Your task to perform on an android device: Go to settings Image 0: 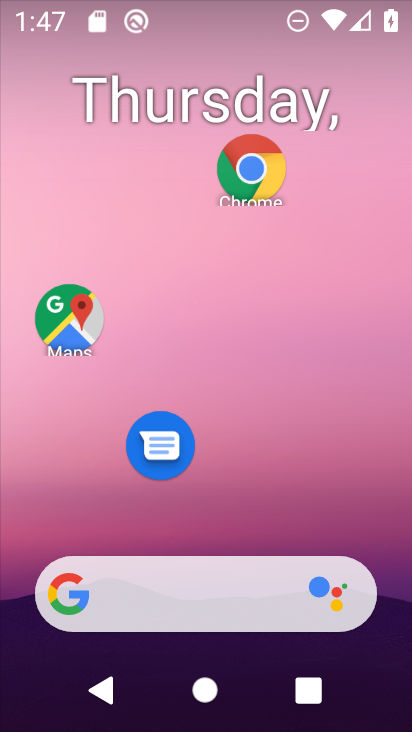
Step 0: drag from (175, 638) to (178, 86)
Your task to perform on an android device: Go to settings Image 1: 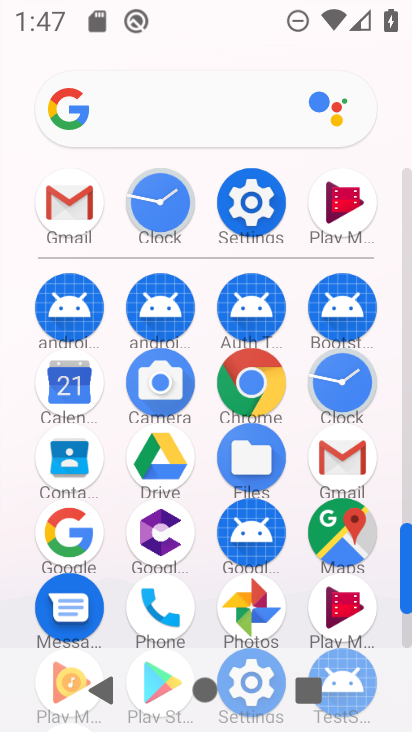
Step 1: click (247, 205)
Your task to perform on an android device: Go to settings Image 2: 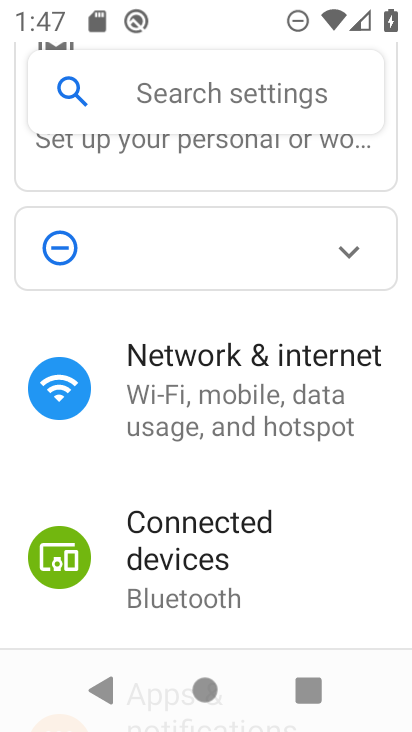
Step 2: task complete